Your task to perform on an android device: allow cookies in the chrome app Image 0: 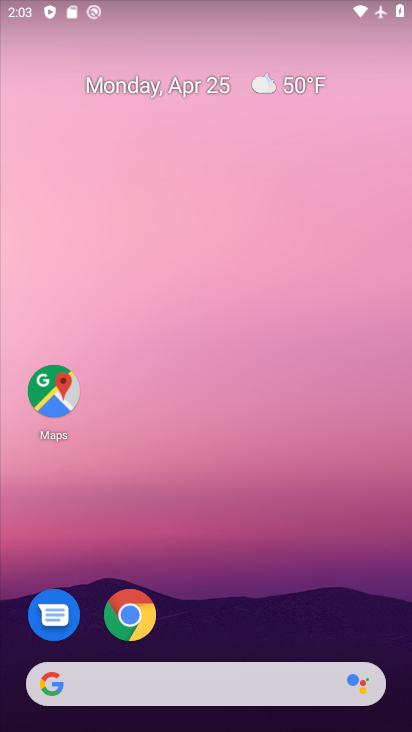
Step 0: click (129, 615)
Your task to perform on an android device: allow cookies in the chrome app Image 1: 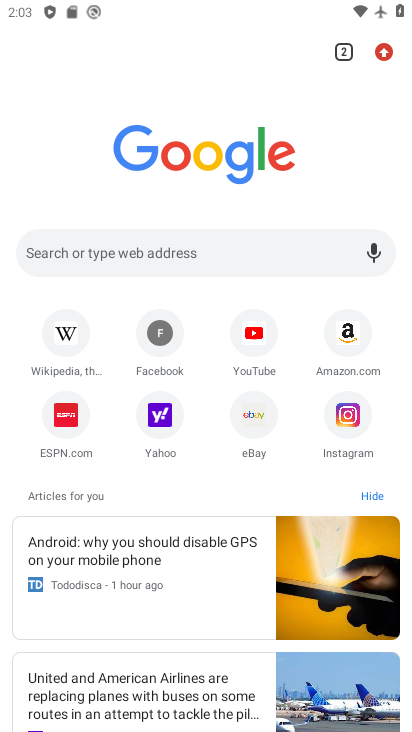
Step 1: click (384, 53)
Your task to perform on an android device: allow cookies in the chrome app Image 2: 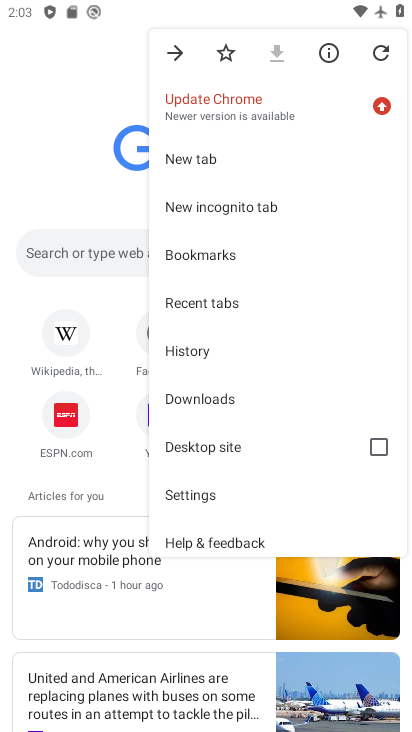
Step 2: click (204, 494)
Your task to perform on an android device: allow cookies in the chrome app Image 3: 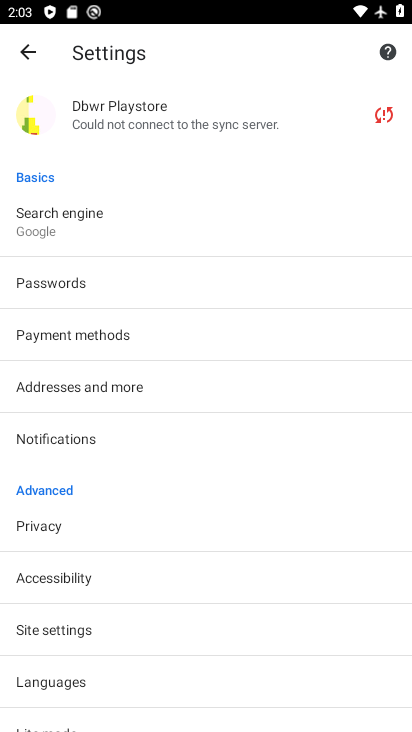
Step 3: click (74, 624)
Your task to perform on an android device: allow cookies in the chrome app Image 4: 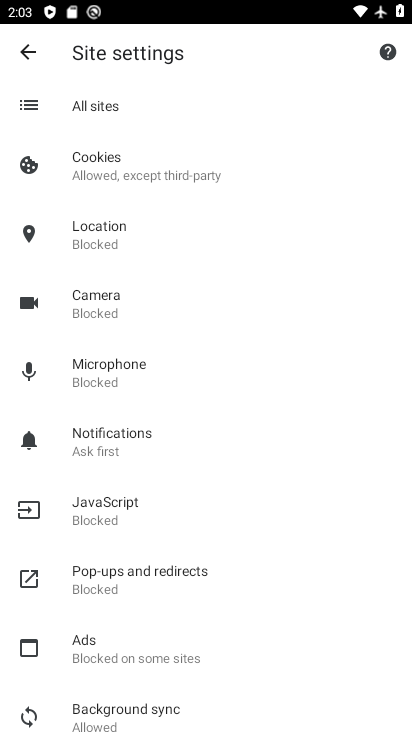
Step 4: click (188, 165)
Your task to perform on an android device: allow cookies in the chrome app Image 5: 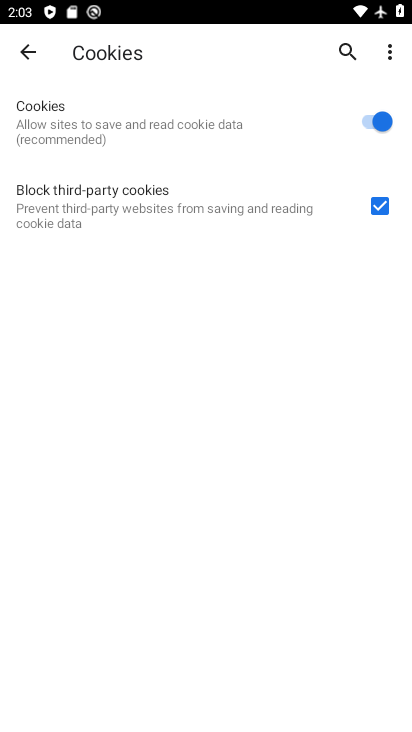
Step 5: task complete